Your task to perform on an android device: Open sound settings Image 0: 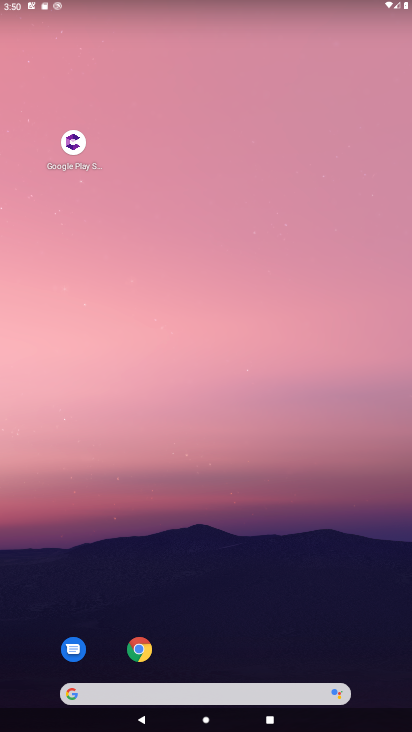
Step 0: drag from (380, 651) to (322, 122)
Your task to perform on an android device: Open sound settings Image 1: 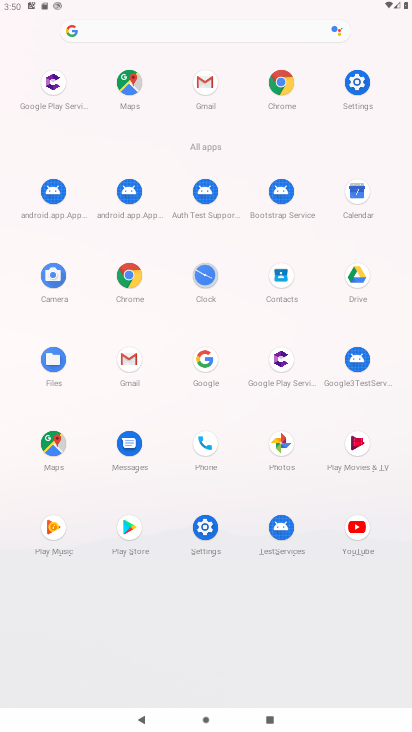
Step 1: click (206, 526)
Your task to perform on an android device: Open sound settings Image 2: 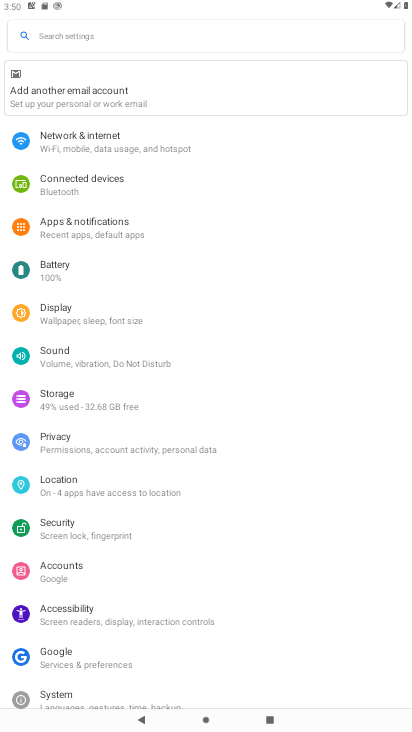
Step 2: click (63, 347)
Your task to perform on an android device: Open sound settings Image 3: 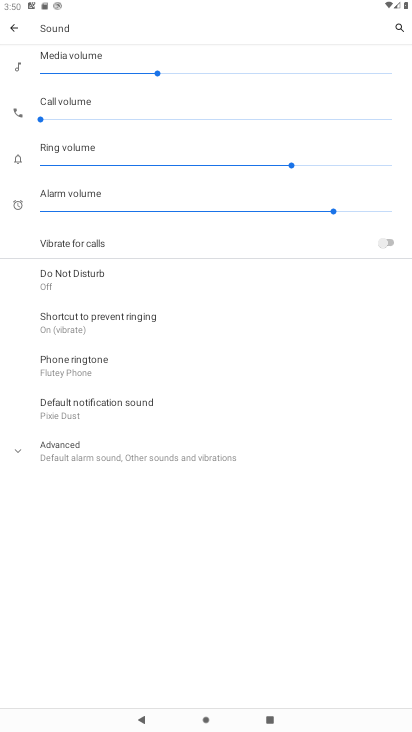
Step 3: click (13, 449)
Your task to perform on an android device: Open sound settings Image 4: 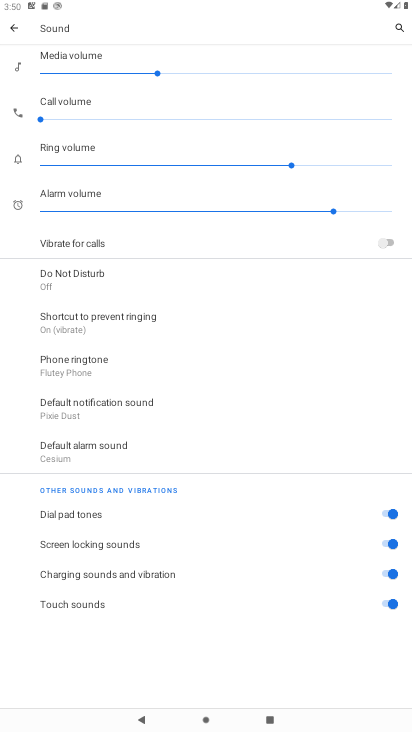
Step 4: task complete